Your task to perform on an android device: uninstall "Firefox Browser" Image 0: 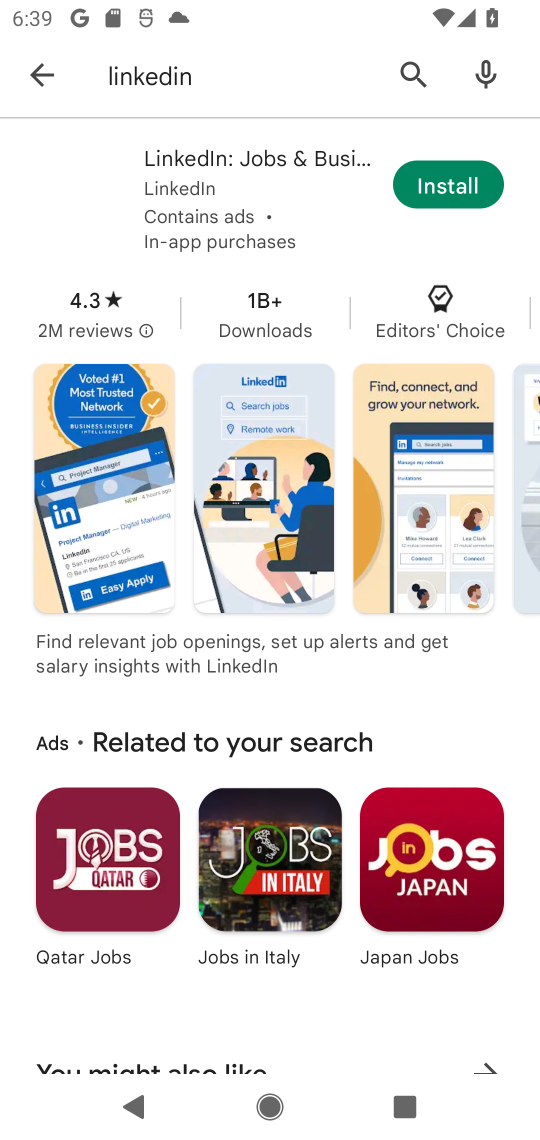
Step 0: press home button
Your task to perform on an android device: uninstall "Firefox Browser" Image 1: 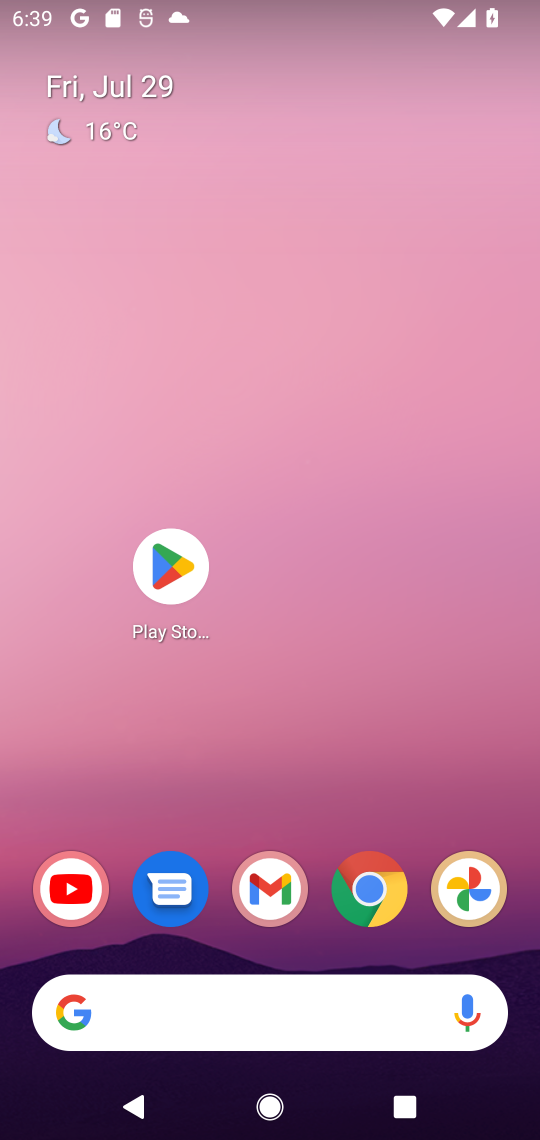
Step 1: click (164, 578)
Your task to perform on an android device: uninstall "Firefox Browser" Image 2: 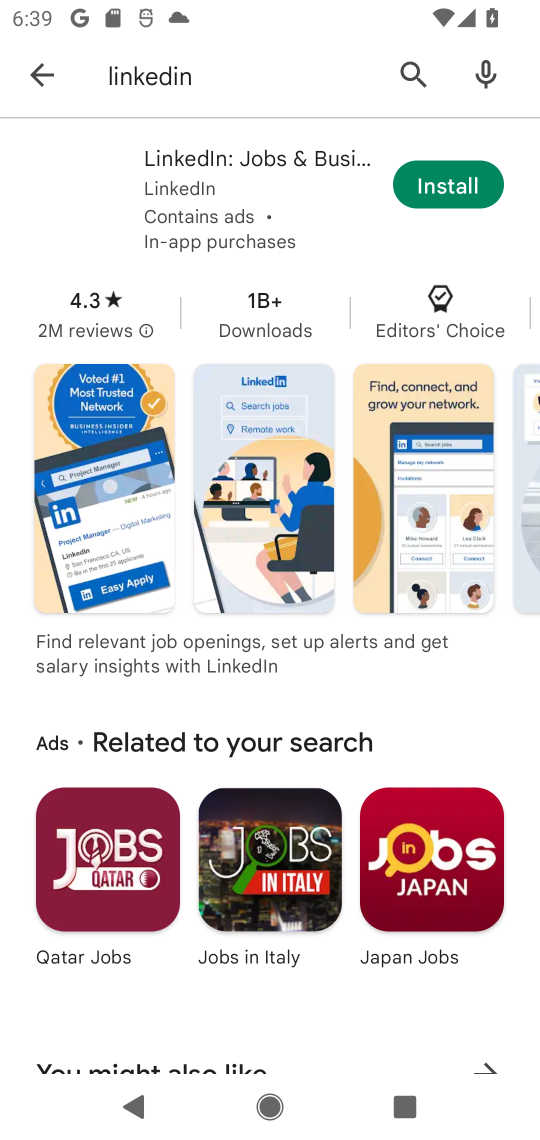
Step 2: click (415, 68)
Your task to perform on an android device: uninstall "Firefox Browser" Image 3: 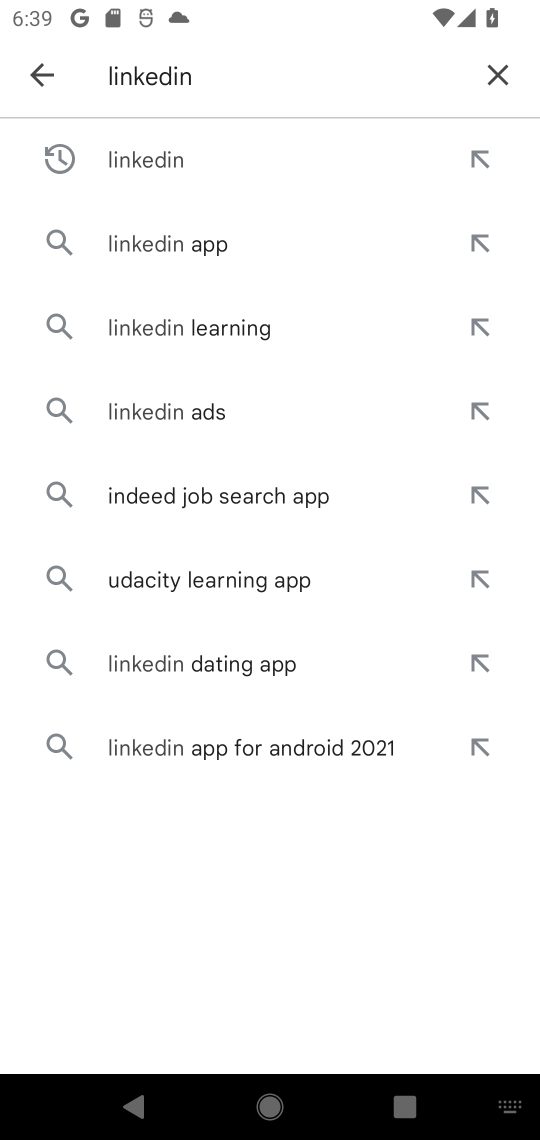
Step 3: click (507, 65)
Your task to perform on an android device: uninstall "Firefox Browser" Image 4: 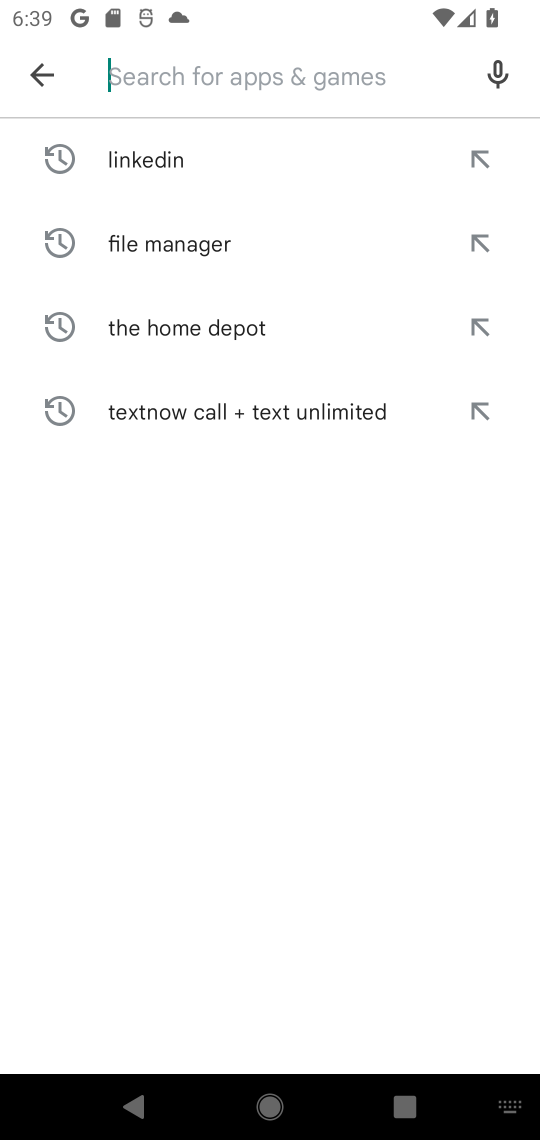
Step 4: type "Firefox Browser"
Your task to perform on an android device: uninstall "Firefox Browser" Image 5: 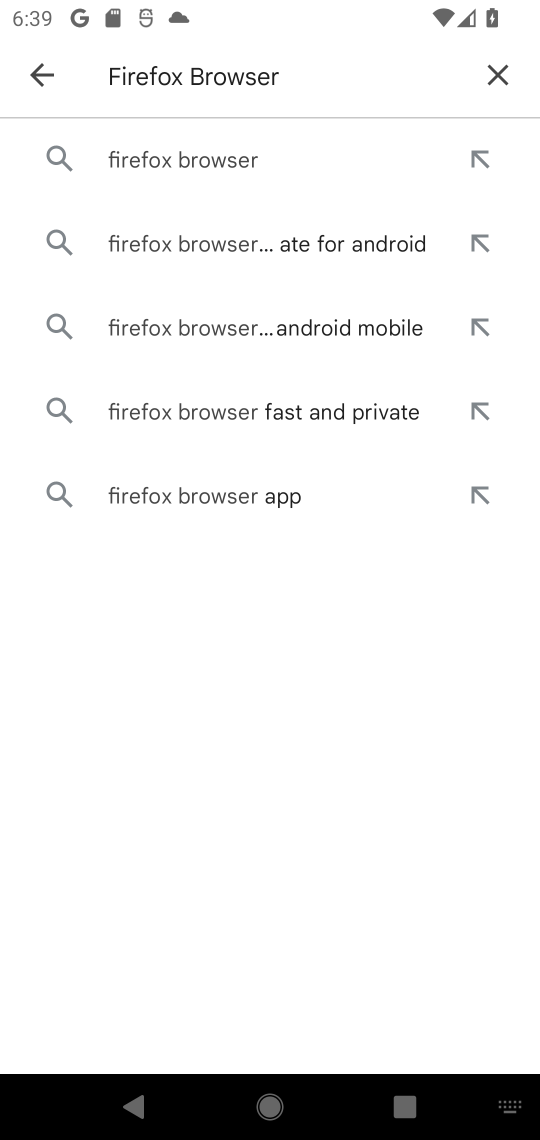
Step 5: click (184, 158)
Your task to perform on an android device: uninstall "Firefox Browser" Image 6: 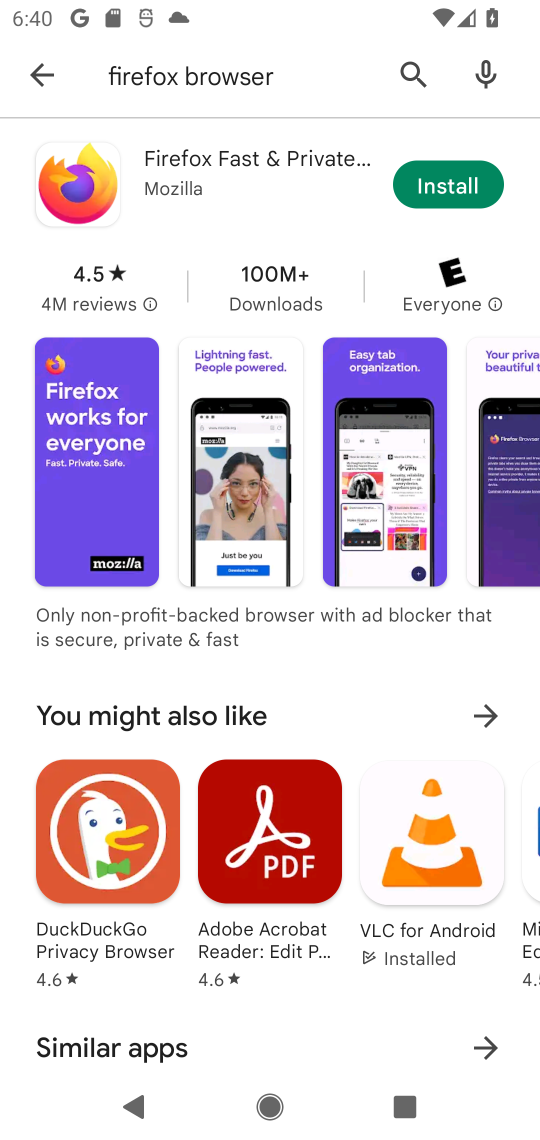
Step 6: task complete